Your task to perform on an android device: Google the capital of Chile Image 0: 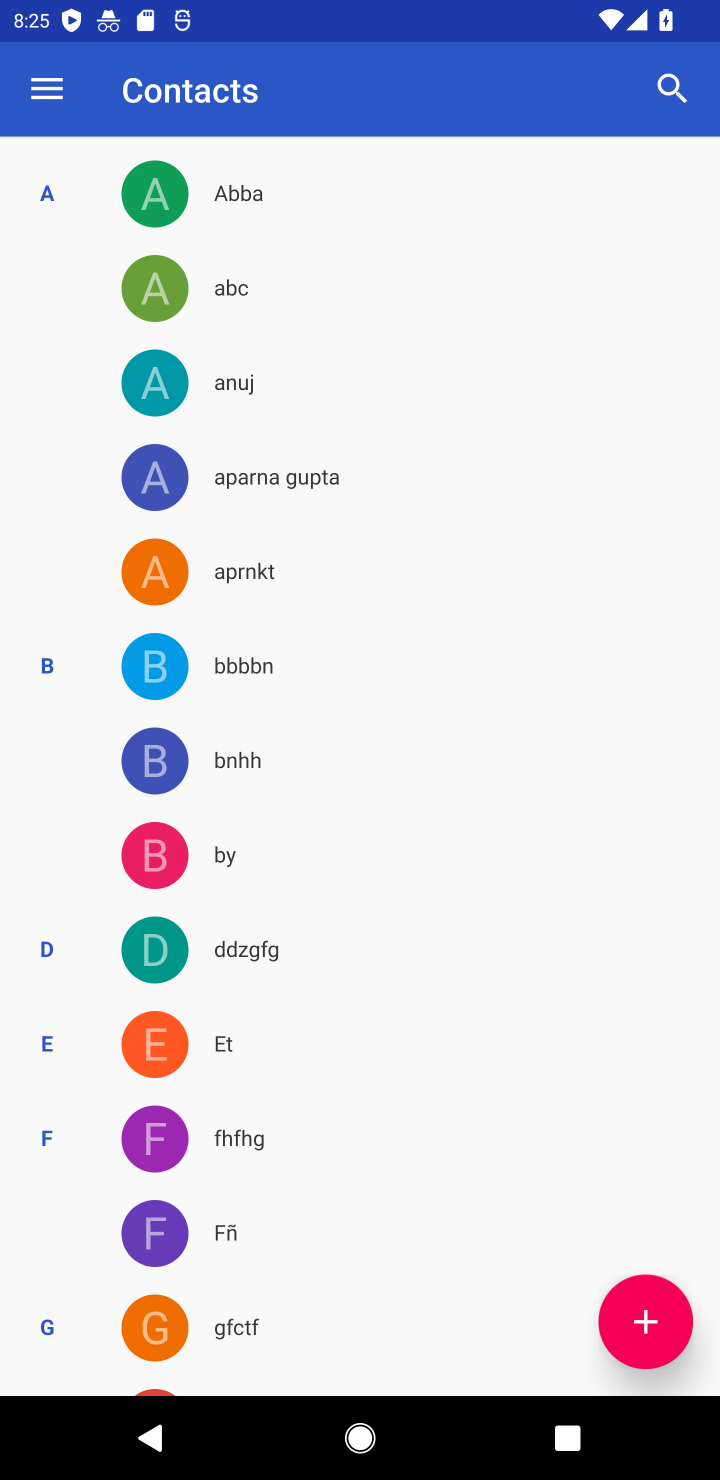
Step 0: press home button
Your task to perform on an android device: Google the capital of Chile Image 1: 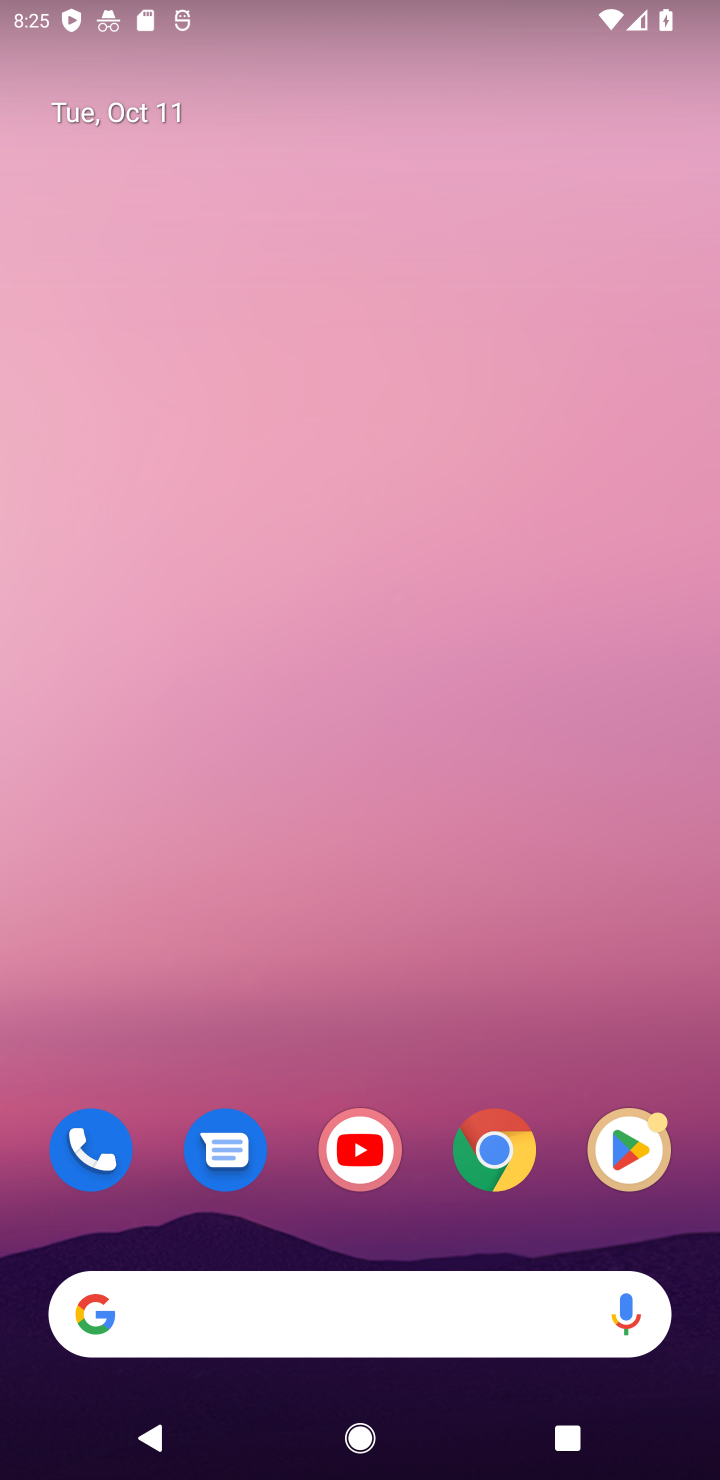
Step 1: click (354, 1327)
Your task to perform on an android device: Google the capital of Chile Image 2: 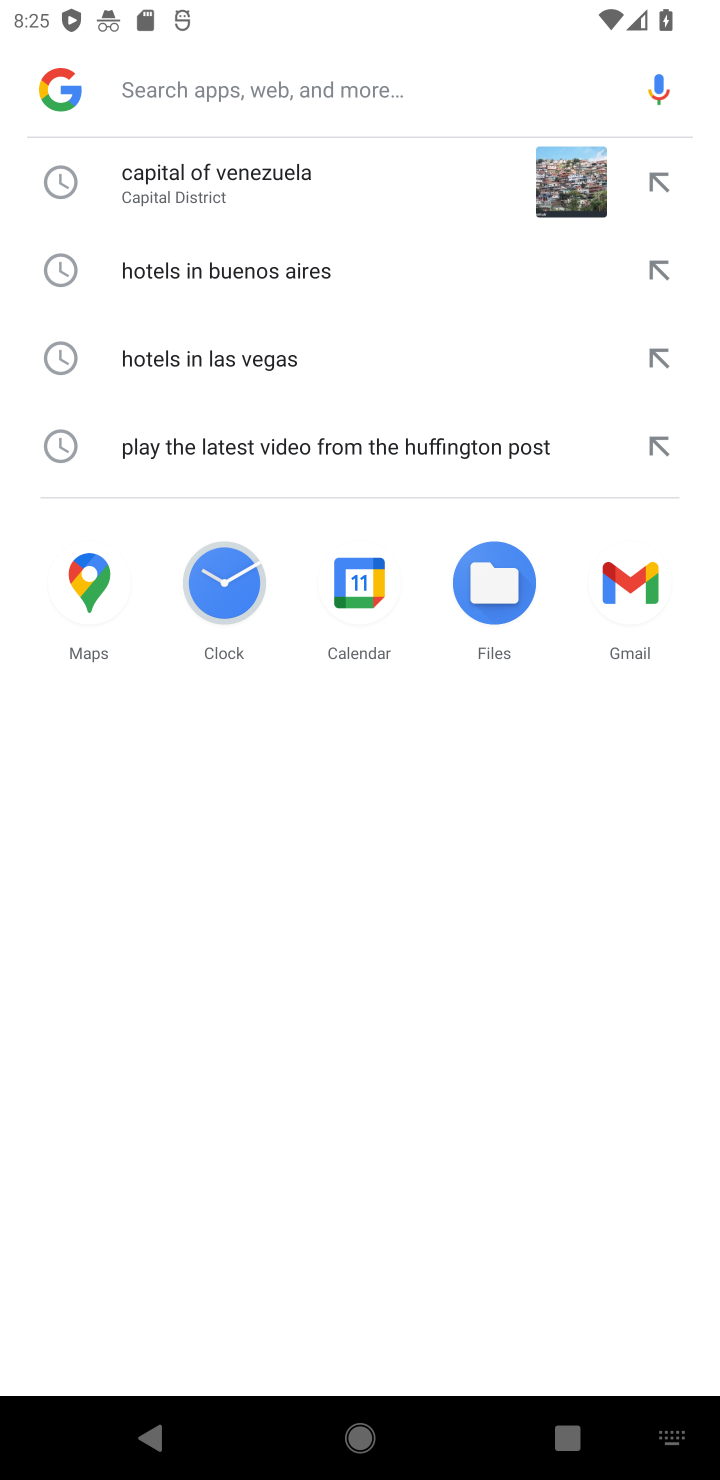
Step 2: type "capital of Chile"
Your task to perform on an android device: Google the capital of Chile Image 3: 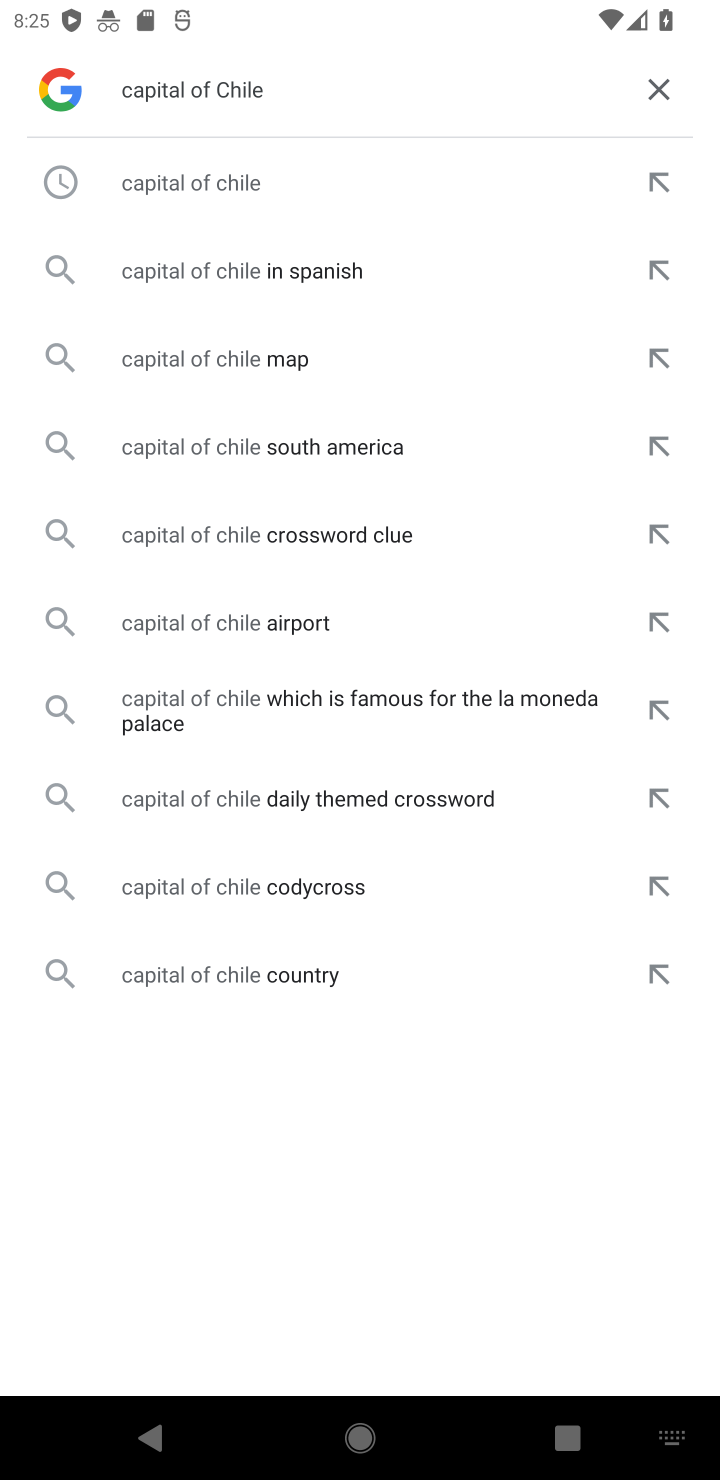
Step 3: click (213, 177)
Your task to perform on an android device: Google the capital of Chile Image 4: 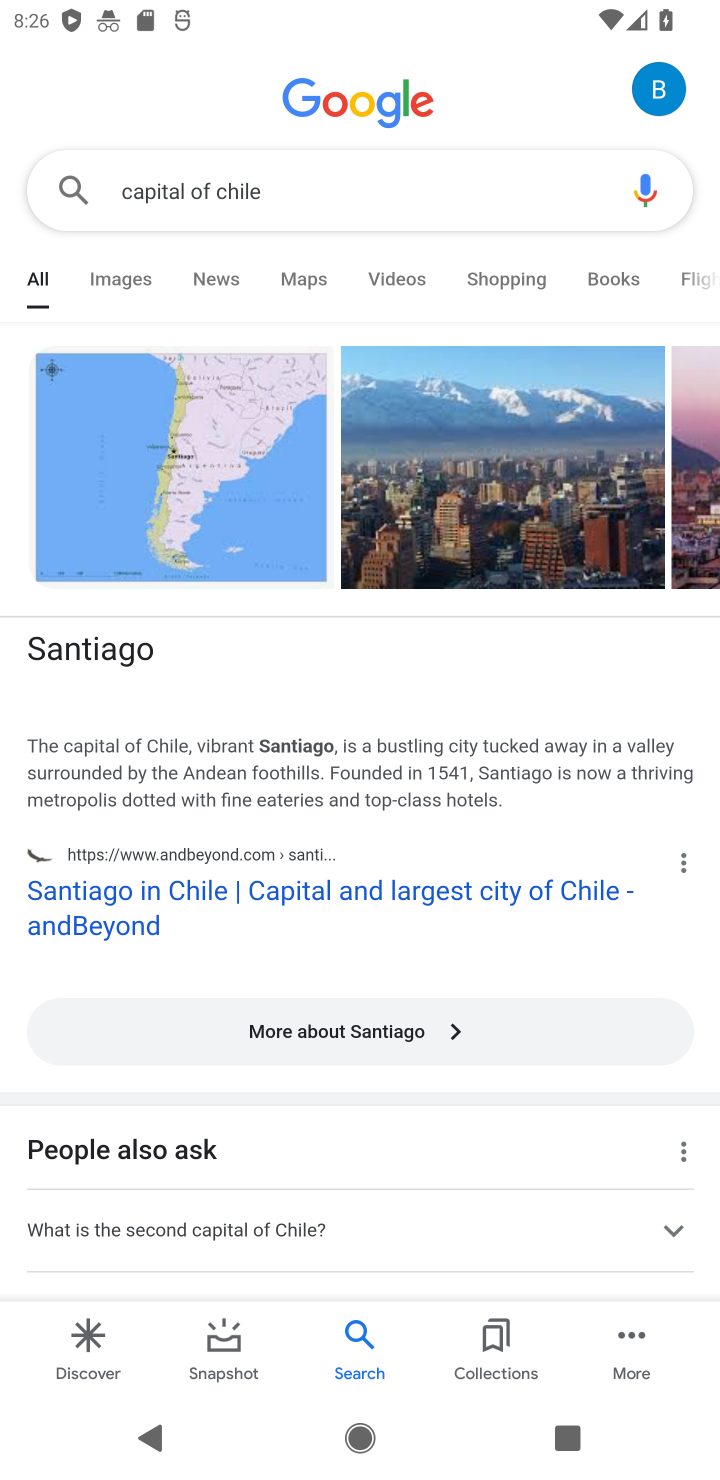
Step 4: task complete